Your task to perform on an android device: Go to privacy settings Image 0: 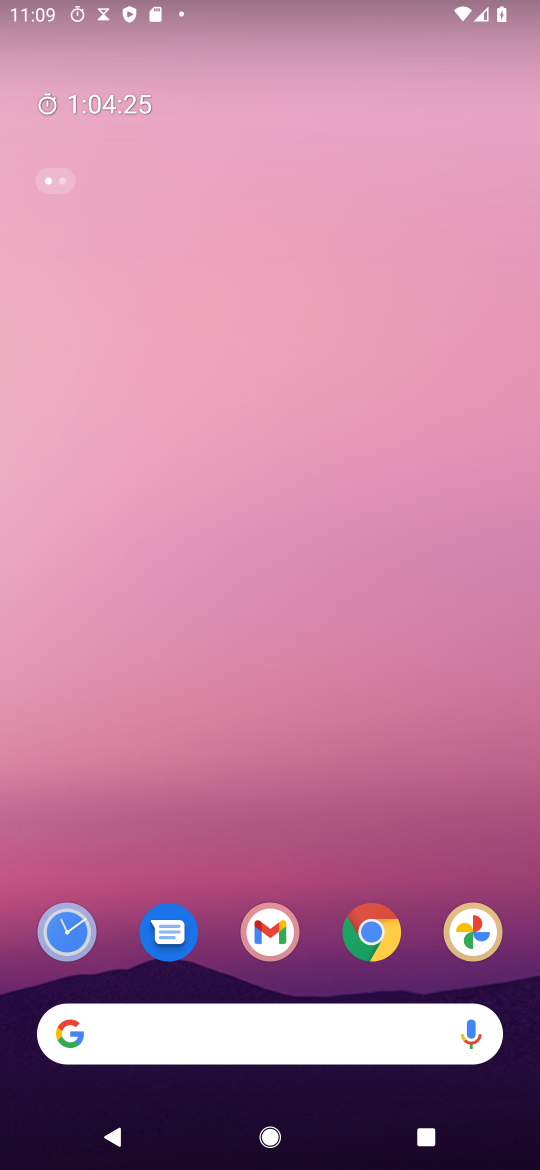
Step 0: drag from (371, 815) to (253, 113)
Your task to perform on an android device: Go to privacy settings Image 1: 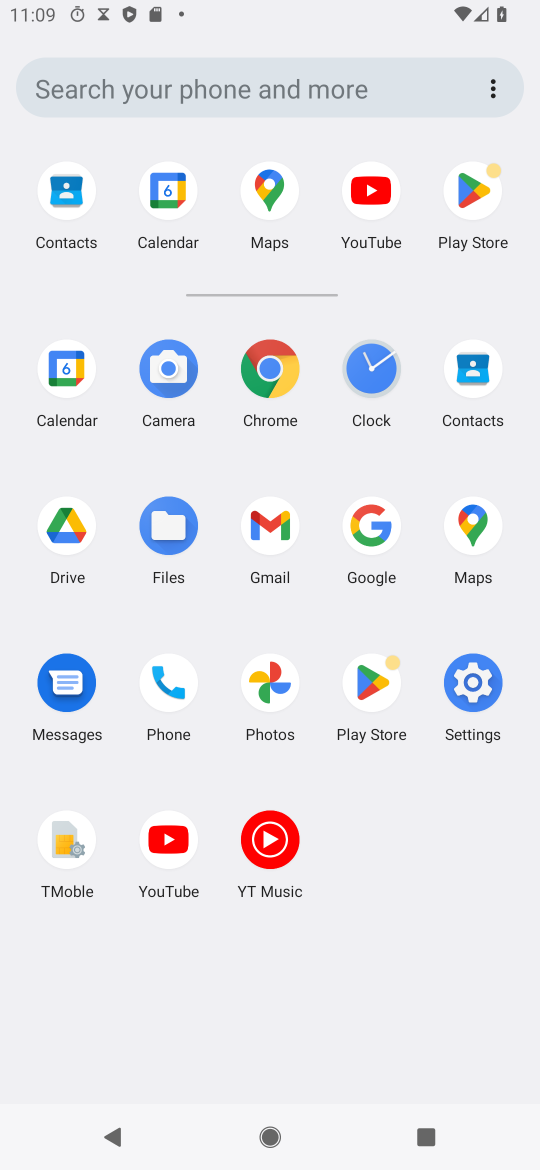
Step 1: click (472, 692)
Your task to perform on an android device: Go to privacy settings Image 2: 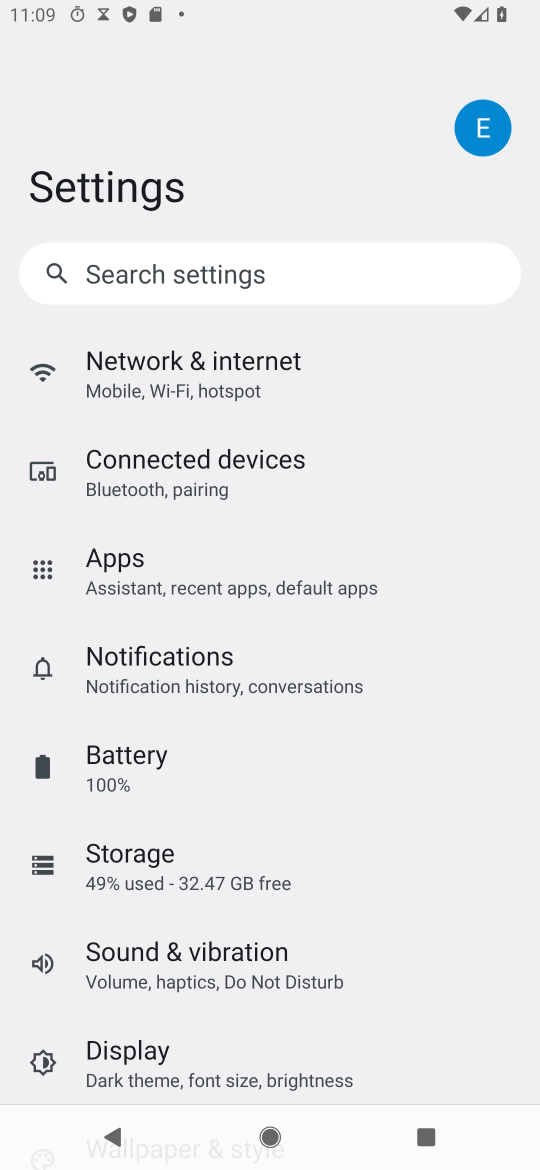
Step 2: drag from (284, 999) to (228, 289)
Your task to perform on an android device: Go to privacy settings Image 3: 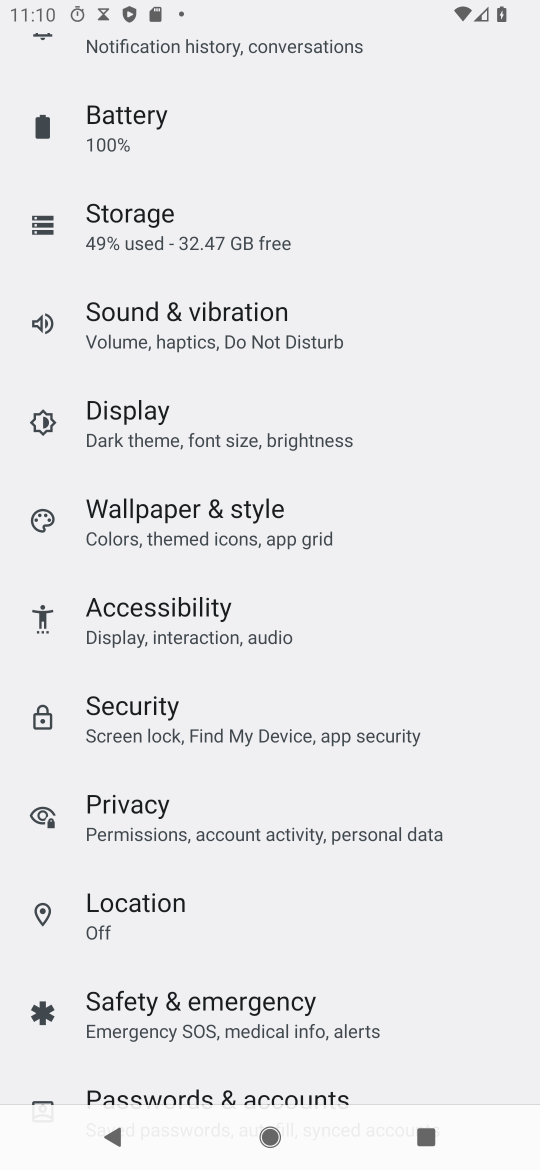
Step 3: click (224, 826)
Your task to perform on an android device: Go to privacy settings Image 4: 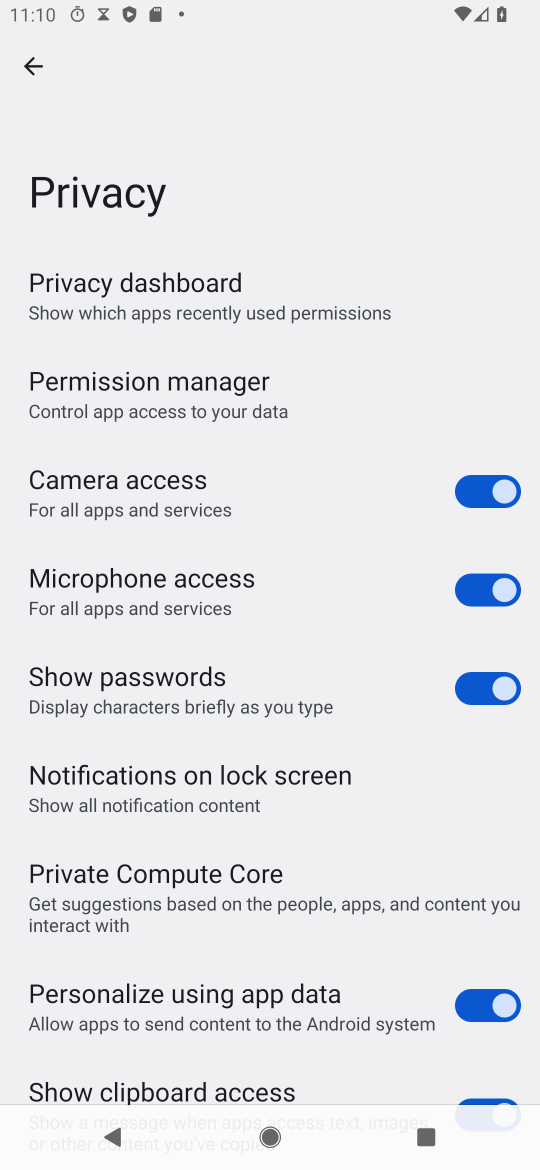
Step 4: task complete